Your task to perform on an android device: turn off priority inbox in the gmail app Image 0: 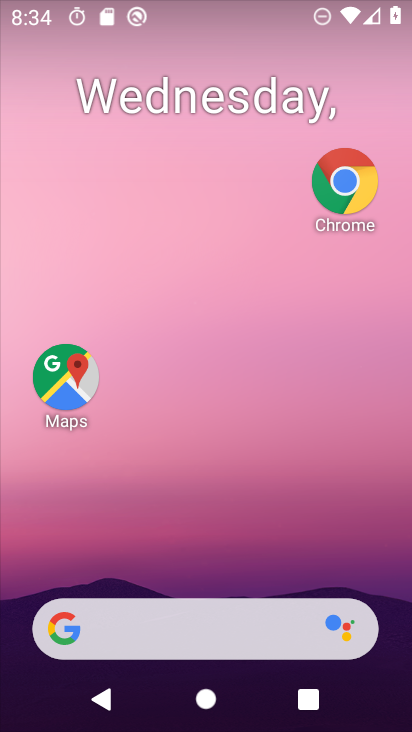
Step 0: drag from (190, 669) to (236, 201)
Your task to perform on an android device: turn off priority inbox in the gmail app Image 1: 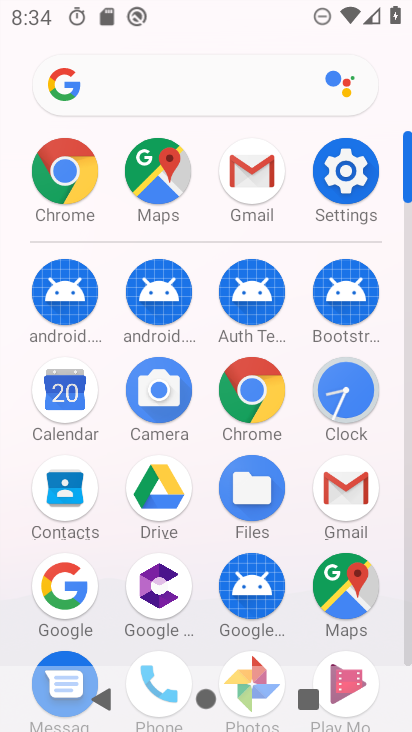
Step 1: click (344, 481)
Your task to perform on an android device: turn off priority inbox in the gmail app Image 2: 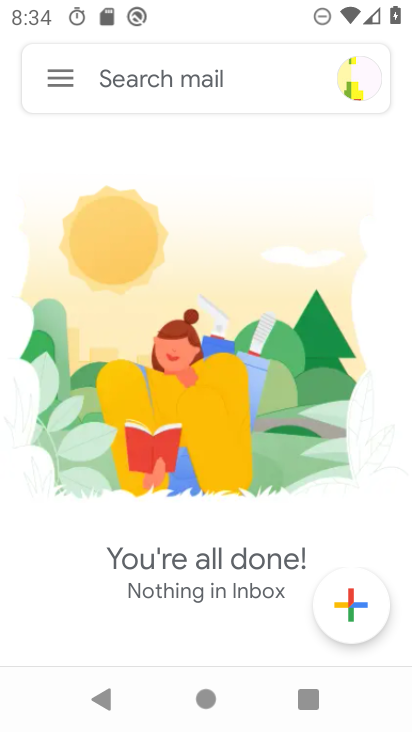
Step 2: click (47, 89)
Your task to perform on an android device: turn off priority inbox in the gmail app Image 3: 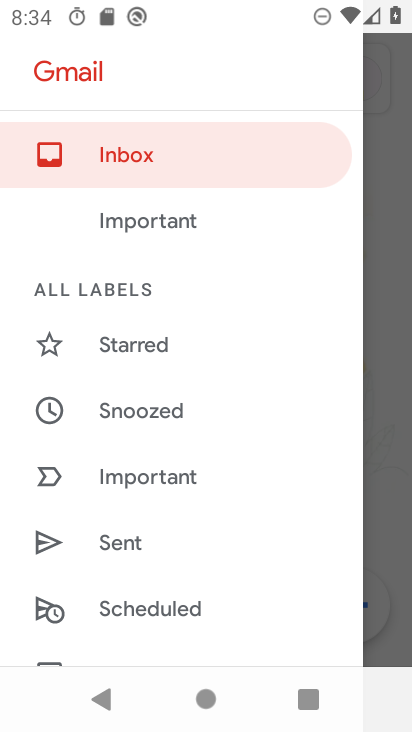
Step 3: drag from (127, 576) to (168, 338)
Your task to perform on an android device: turn off priority inbox in the gmail app Image 4: 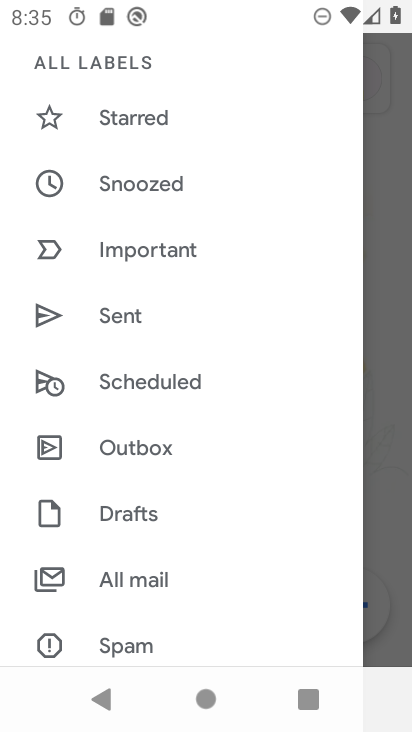
Step 4: drag from (144, 498) to (188, 253)
Your task to perform on an android device: turn off priority inbox in the gmail app Image 5: 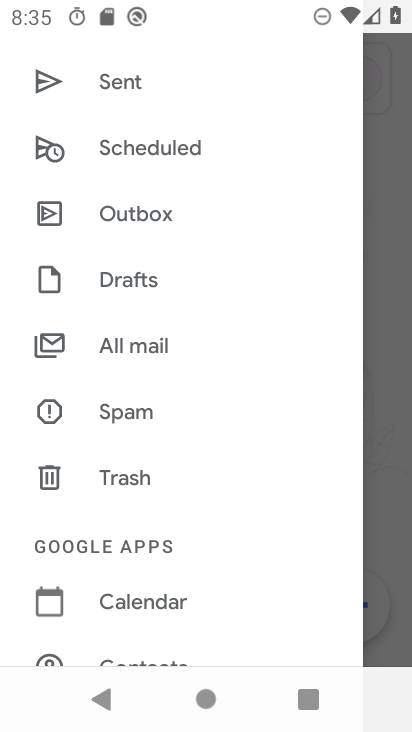
Step 5: drag from (177, 527) to (221, 272)
Your task to perform on an android device: turn off priority inbox in the gmail app Image 6: 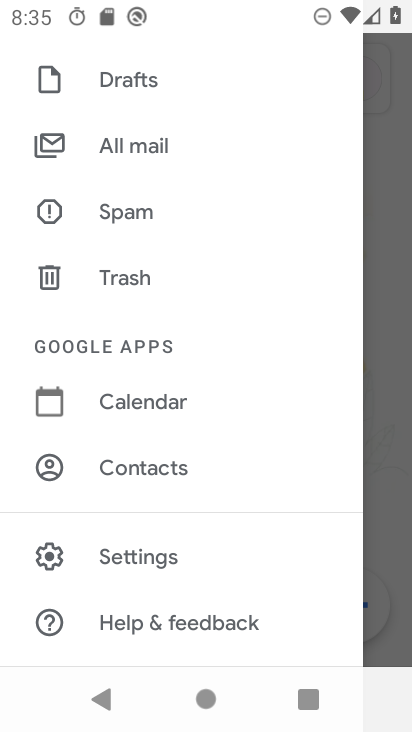
Step 6: click (135, 548)
Your task to perform on an android device: turn off priority inbox in the gmail app Image 7: 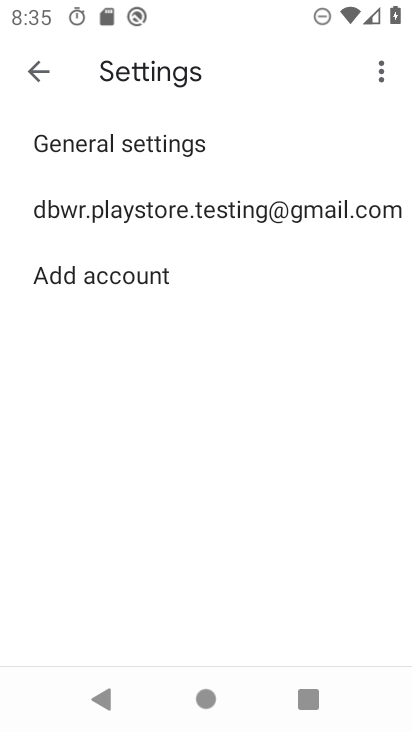
Step 7: click (179, 222)
Your task to perform on an android device: turn off priority inbox in the gmail app Image 8: 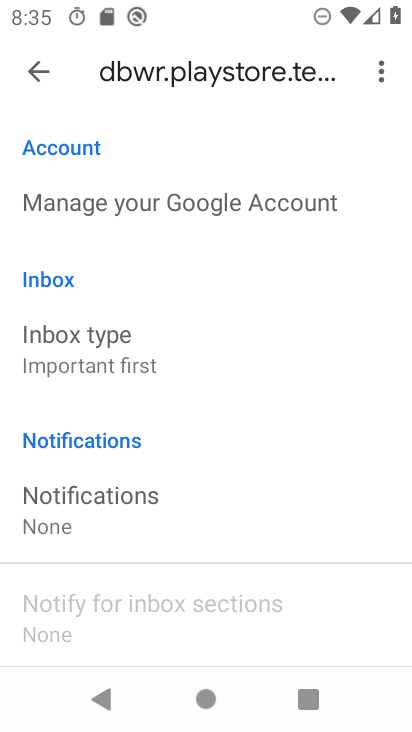
Step 8: drag from (155, 227) to (149, 389)
Your task to perform on an android device: turn off priority inbox in the gmail app Image 9: 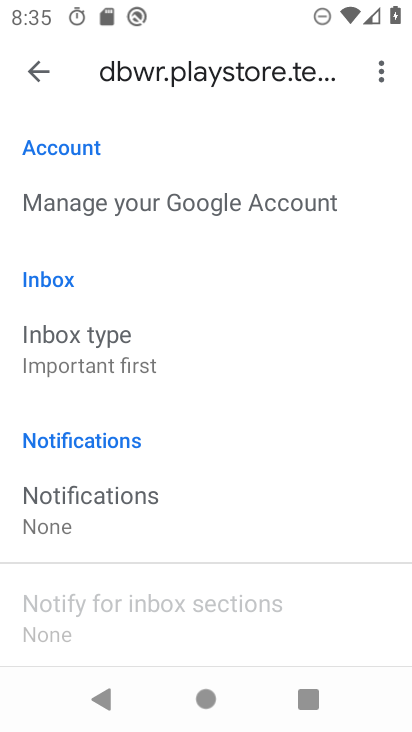
Step 9: click (127, 329)
Your task to perform on an android device: turn off priority inbox in the gmail app Image 10: 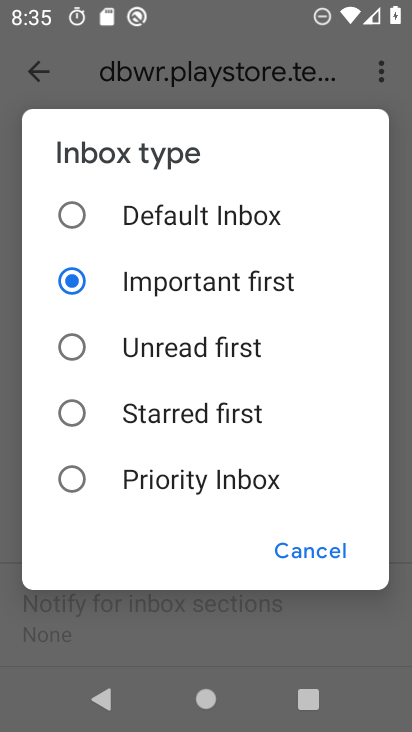
Step 10: task complete